Your task to perform on an android device: Show me popular videos on Youtube Image 0: 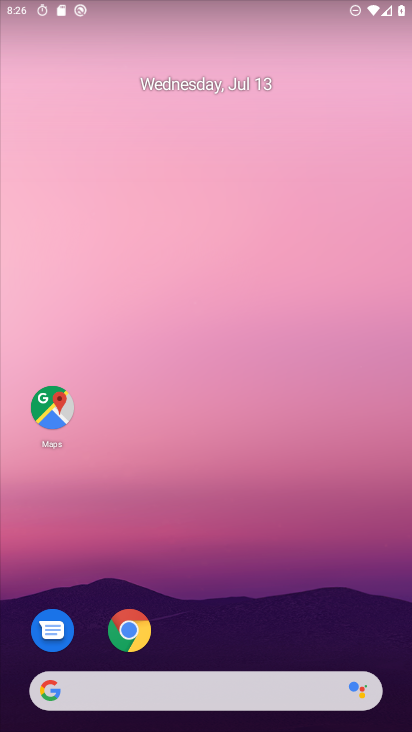
Step 0: drag from (397, 669) to (236, 105)
Your task to perform on an android device: Show me popular videos on Youtube Image 1: 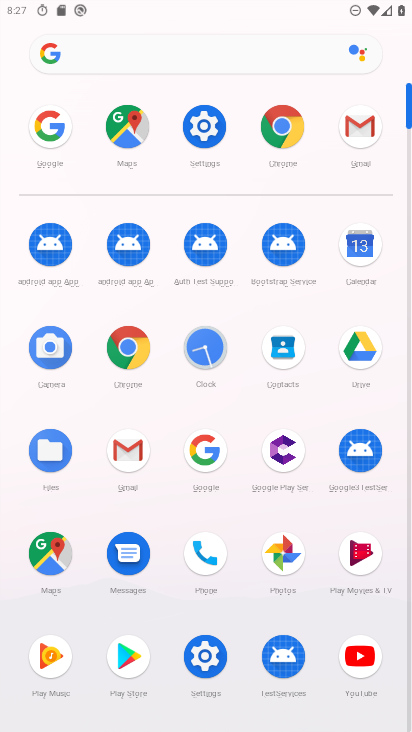
Step 1: click (362, 663)
Your task to perform on an android device: Show me popular videos on Youtube Image 2: 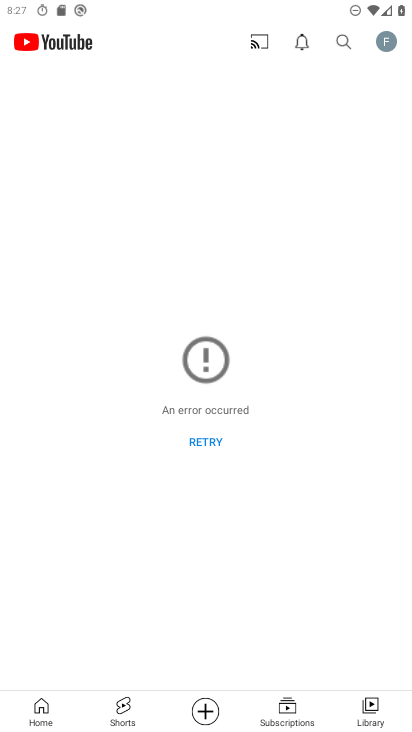
Step 2: task complete